Your task to perform on an android device: Show me recent news Image 0: 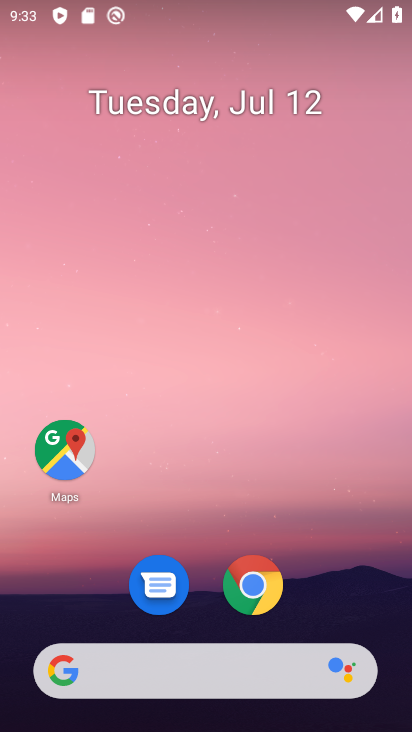
Step 0: click (194, 677)
Your task to perform on an android device: Show me recent news Image 1: 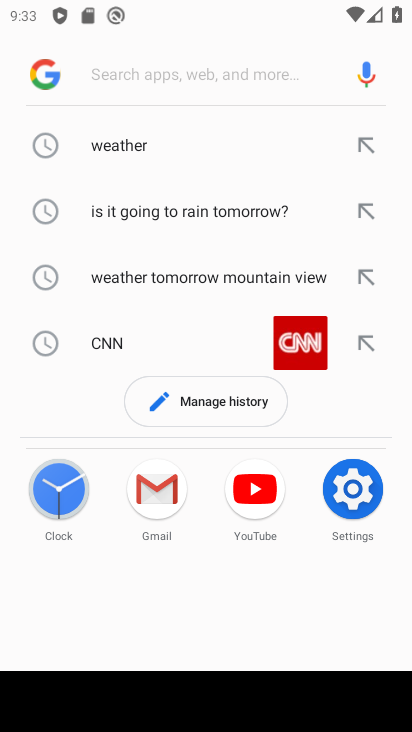
Step 1: type " recent news"
Your task to perform on an android device: Show me recent news Image 2: 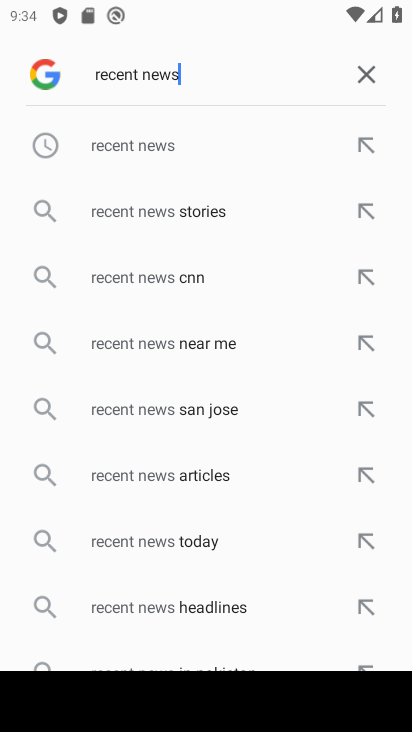
Step 2: click (139, 144)
Your task to perform on an android device: Show me recent news Image 3: 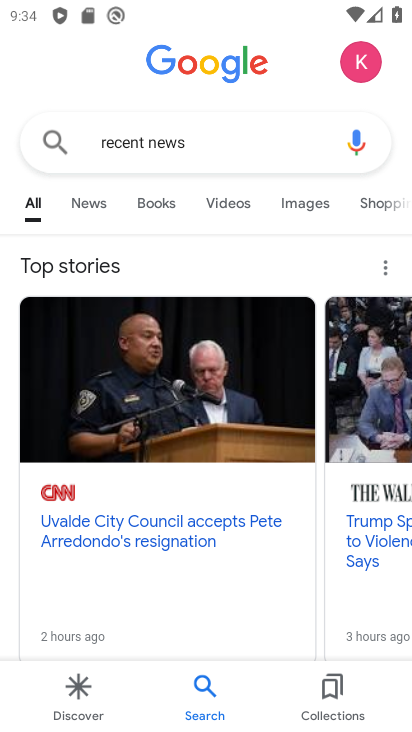
Step 3: click (99, 198)
Your task to perform on an android device: Show me recent news Image 4: 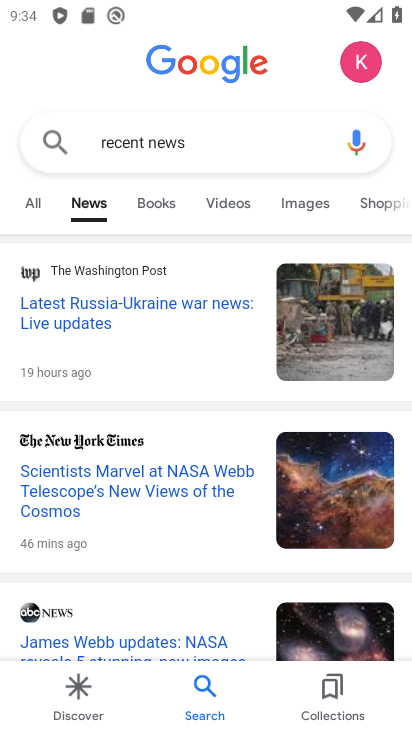
Step 4: task complete